Your task to perform on an android device: toggle translation in the chrome app Image 0: 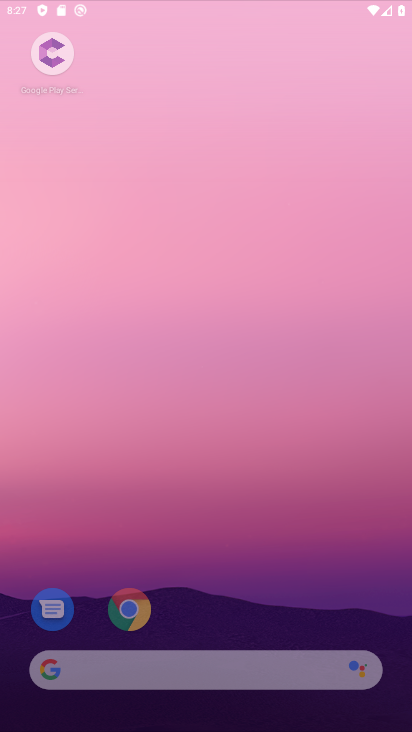
Step 0: press home button
Your task to perform on an android device: toggle translation in the chrome app Image 1: 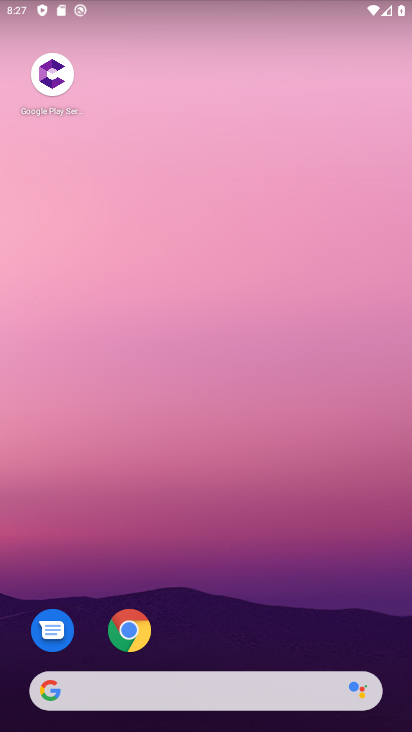
Step 1: click (128, 633)
Your task to perform on an android device: toggle translation in the chrome app Image 2: 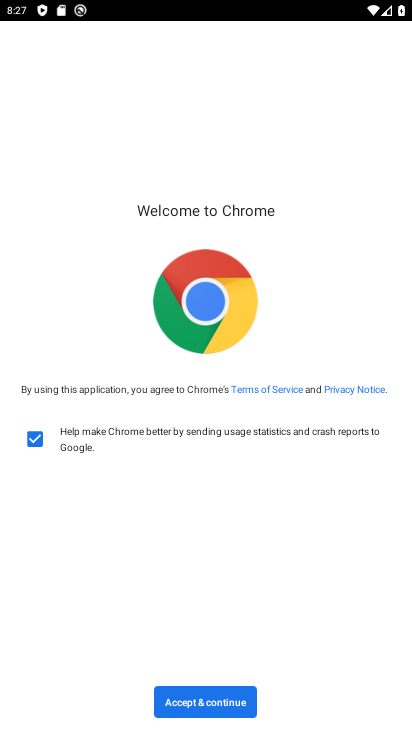
Step 2: click (213, 702)
Your task to perform on an android device: toggle translation in the chrome app Image 3: 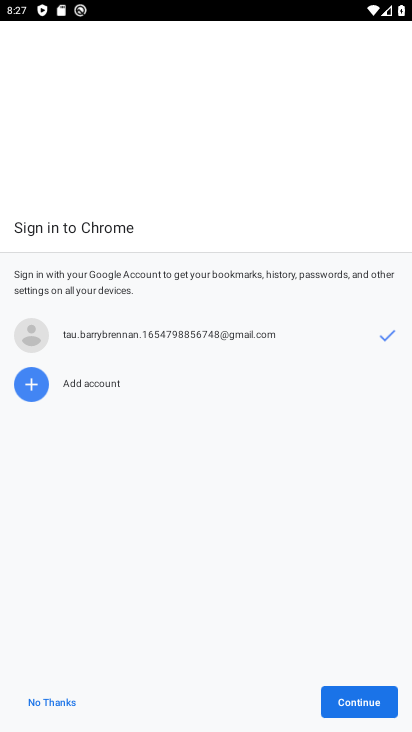
Step 3: click (360, 705)
Your task to perform on an android device: toggle translation in the chrome app Image 4: 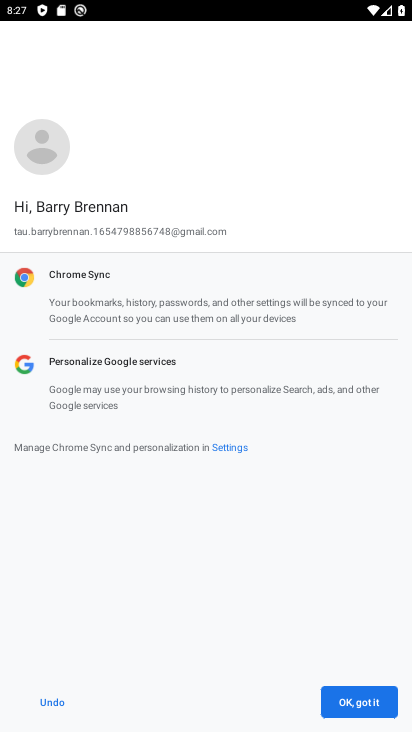
Step 4: click (360, 705)
Your task to perform on an android device: toggle translation in the chrome app Image 5: 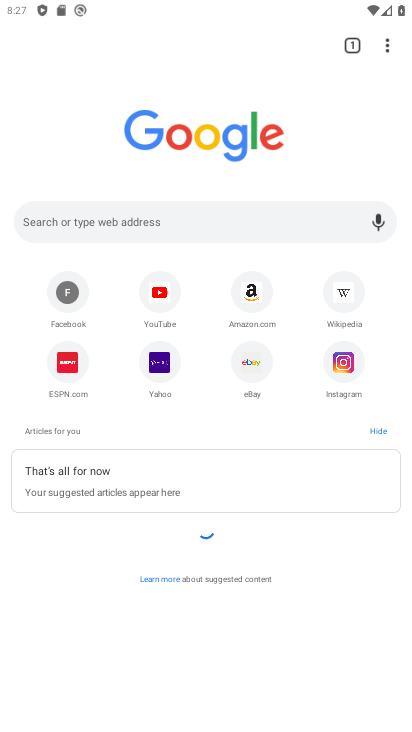
Step 5: click (387, 52)
Your task to perform on an android device: toggle translation in the chrome app Image 6: 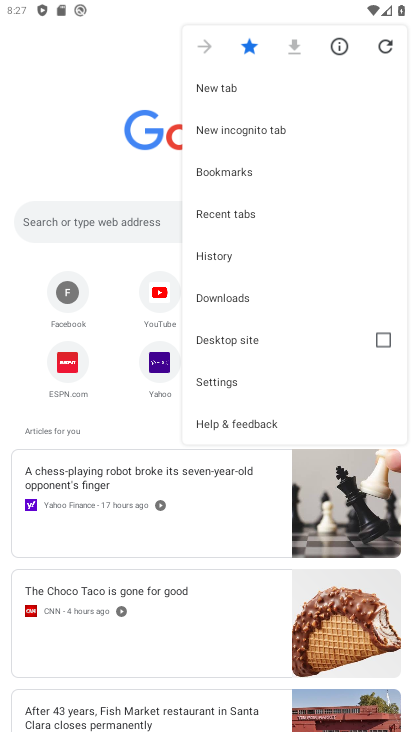
Step 6: click (226, 381)
Your task to perform on an android device: toggle translation in the chrome app Image 7: 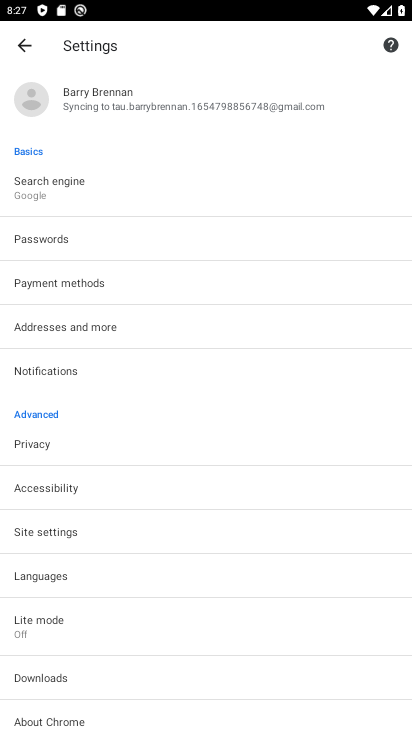
Step 7: click (30, 573)
Your task to perform on an android device: toggle translation in the chrome app Image 8: 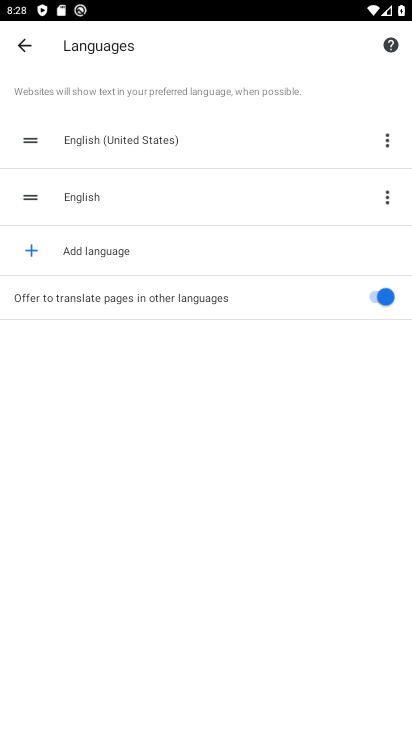
Step 8: click (372, 296)
Your task to perform on an android device: toggle translation in the chrome app Image 9: 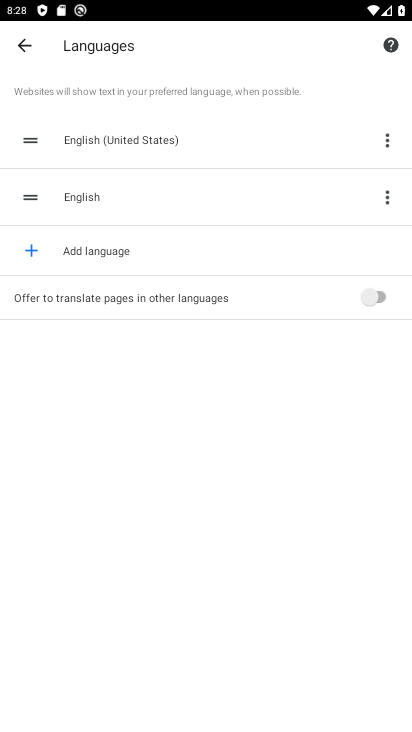
Step 9: task complete